Your task to perform on an android device: turn notification dots on Image 0: 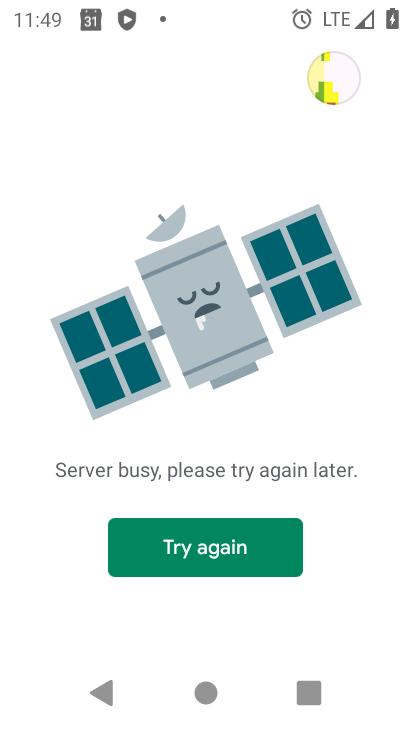
Step 0: press back button
Your task to perform on an android device: turn notification dots on Image 1: 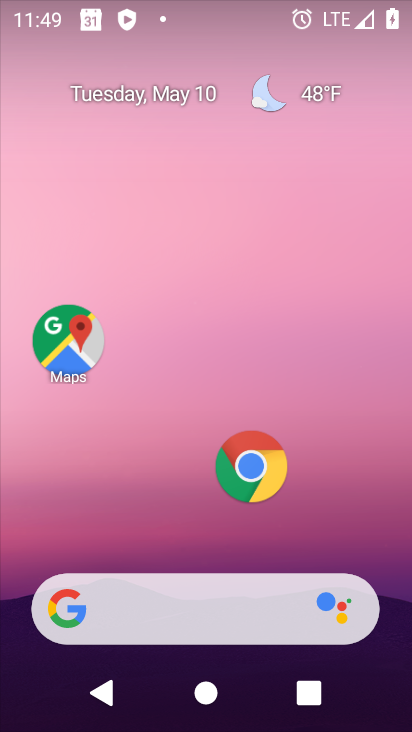
Step 1: drag from (102, 529) to (241, 78)
Your task to perform on an android device: turn notification dots on Image 2: 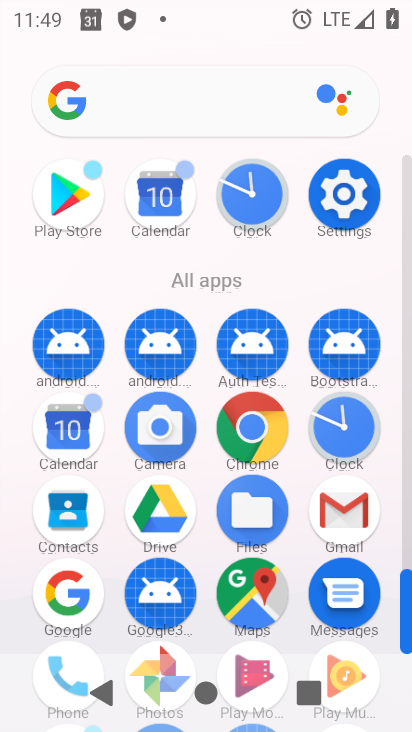
Step 2: click (339, 189)
Your task to perform on an android device: turn notification dots on Image 3: 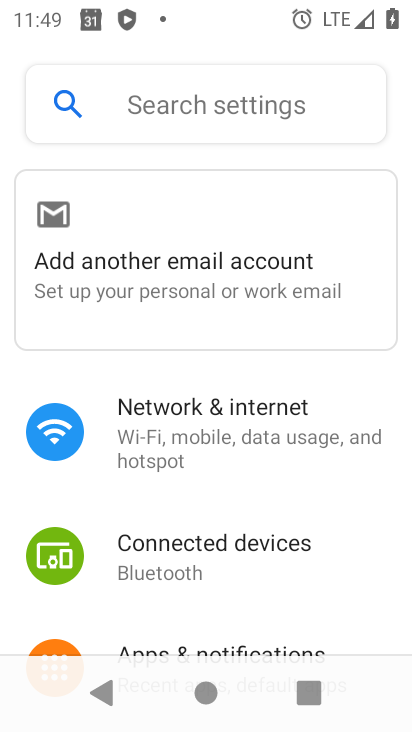
Step 3: drag from (214, 571) to (268, 207)
Your task to perform on an android device: turn notification dots on Image 4: 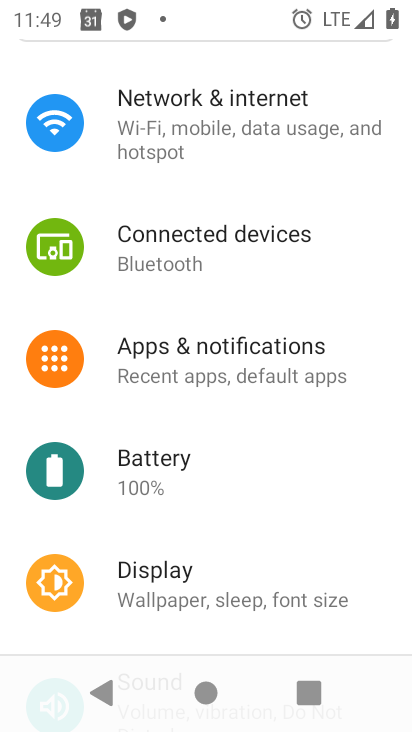
Step 4: click (239, 519)
Your task to perform on an android device: turn notification dots on Image 5: 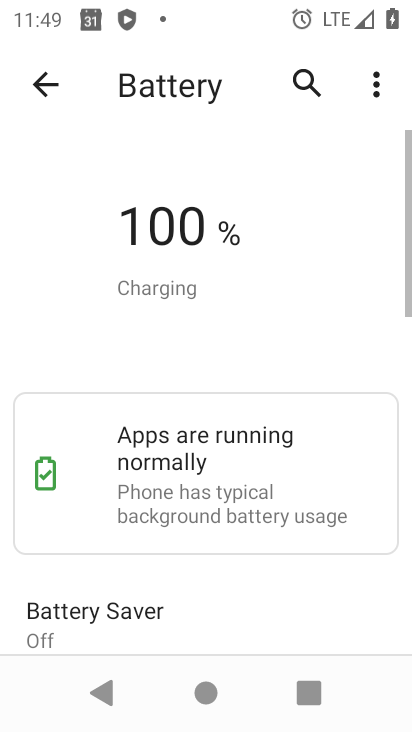
Step 5: drag from (202, 527) to (292, 147)
Your task to perform on an android device: turn notification dots on Image 6: 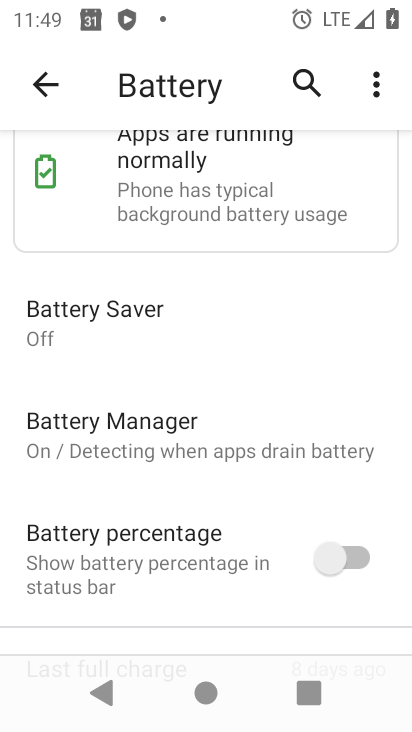
Step 6: drag from (160, 588) to (235, 270)
Your task to perform on an android device: turn notification dots on Image 7: 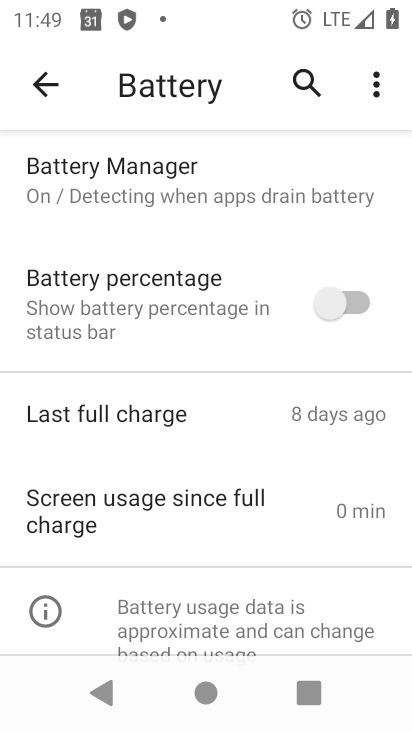
Step 7: drag from (187, 594) to (299, 98)
Your task to perform on an android device: turn notification dots on Image 8: 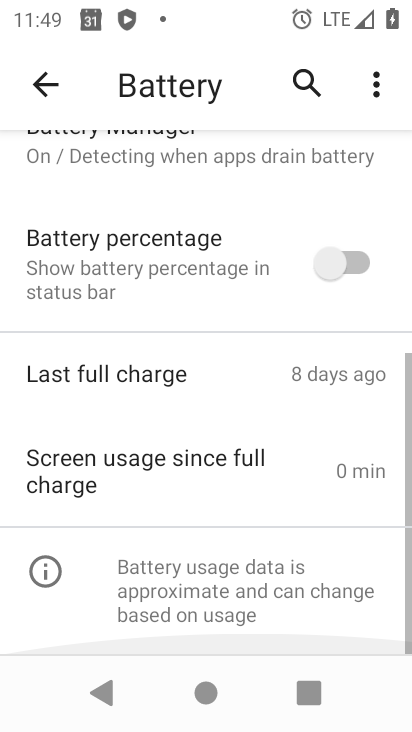
Step 8: drag from (232, 195) to (172, 604)
Your task to perform on an android device: turn notification dots on Image 9: 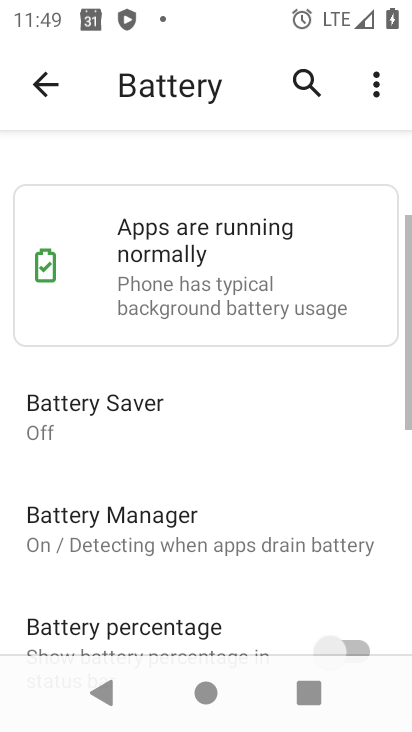
Step 9: click (47, 72)
Your task to perform on an android device: turn notification dots on Image 10: 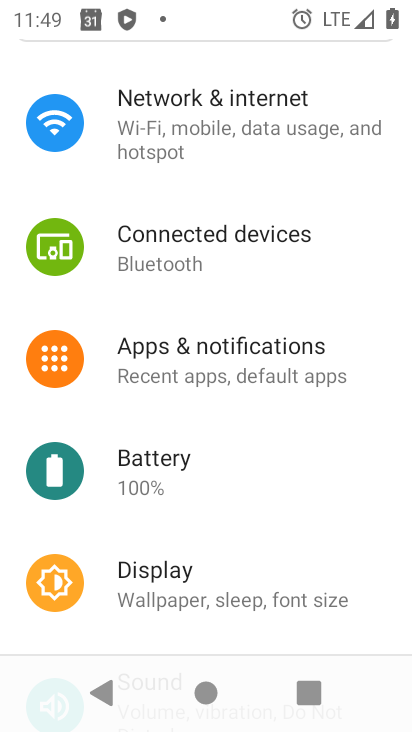
Step 10: click (167, 345)
Your task to perform on an android device: turn notification dots on Image 11: 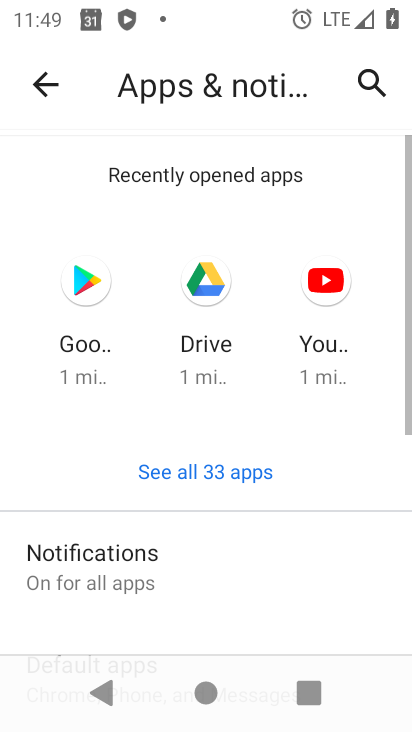
Step 11: click (121, 545)
Your task to perform on an android device: turn notification dots on Image 12: 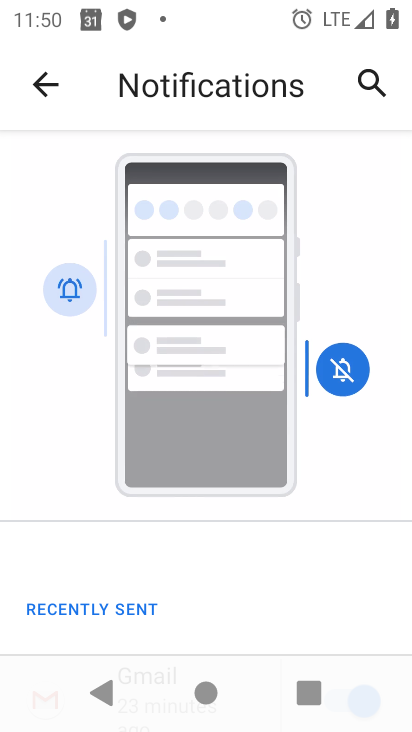
Step 12: drag from (195, 620) to (318, 150)
Your task to perform on an android device: turn notification dots on Image 13: 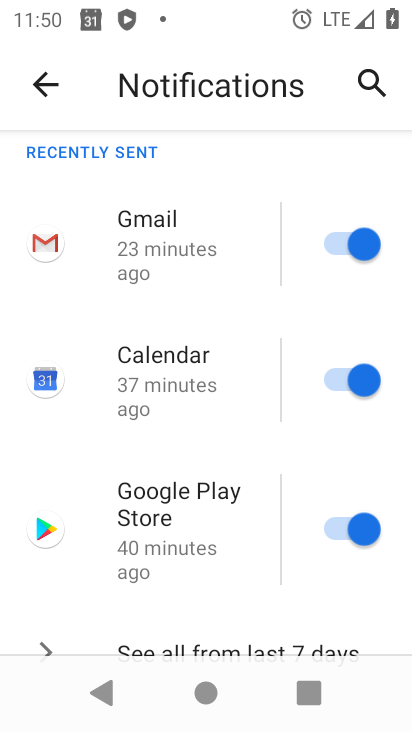
Step 13: drag from (174, 634) to (306, 127)
Your task to perform on an android device: turn notification dots on Image 14: 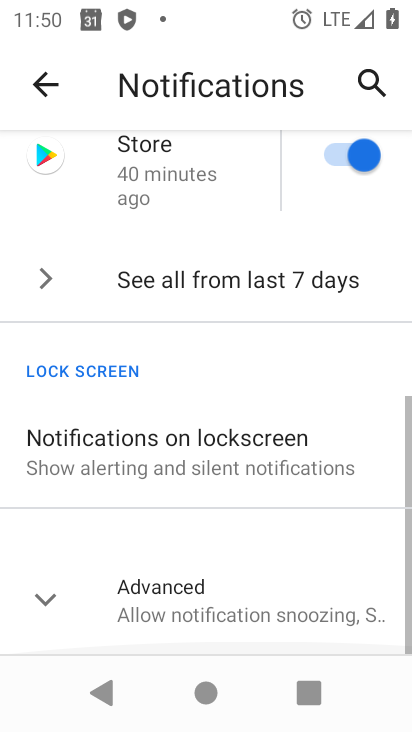
Step 14: drag from (180, 548) to (266, 167)
Your task to perform on an android device: turn notification dots on Image 15: 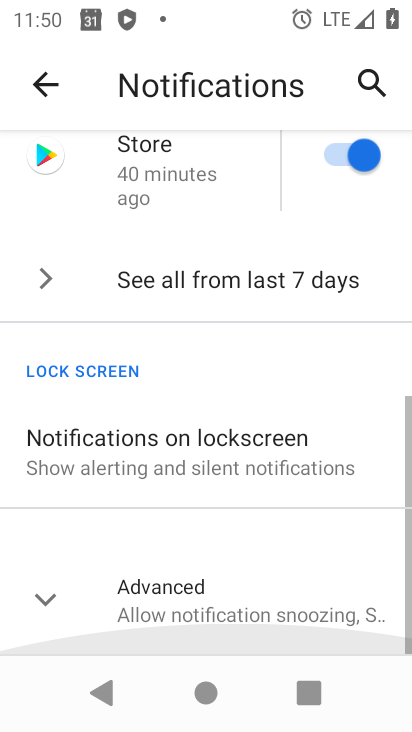
Step 15: click (225, 600)
Your task to perform on an android device: turn notification dots on Image 16: 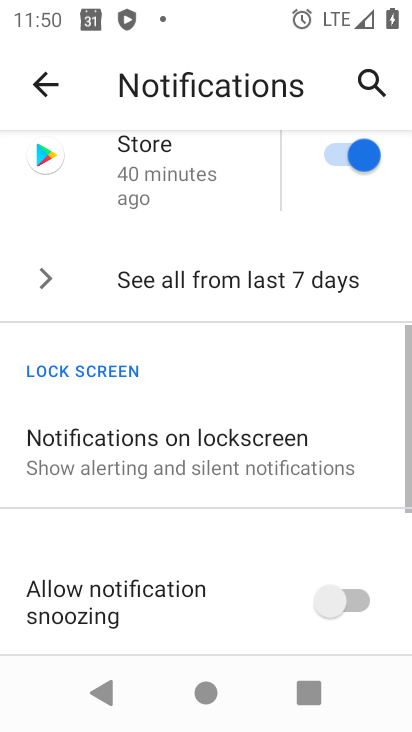
Step 16: task complete